Your task to perform on an android device: What's on my calendar today? Image 0: 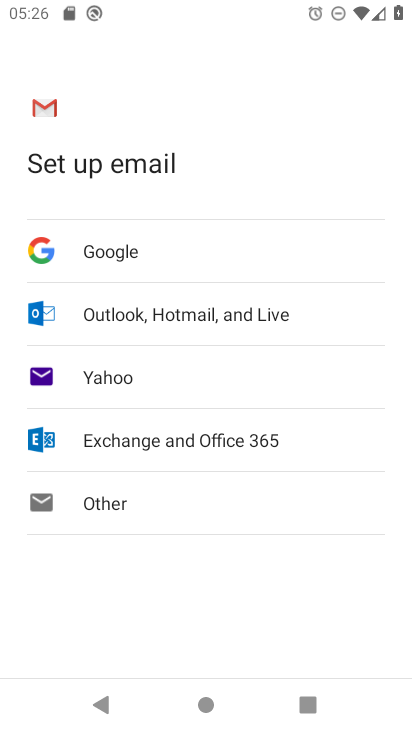
Step 0: press home button
Your task to perform on an android device: What's on my calendar today? Image 1: 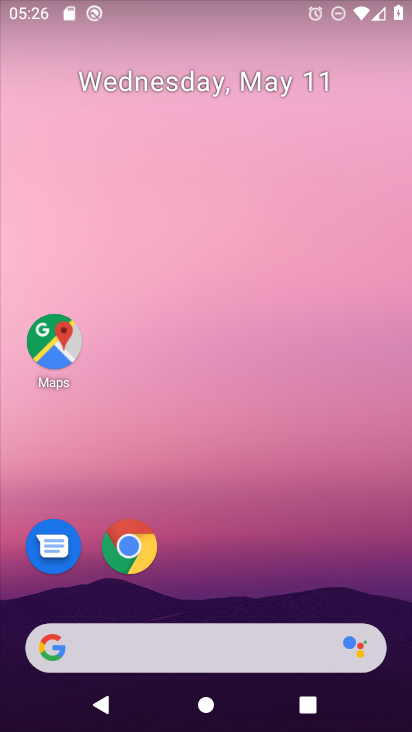
Step 1: drag from (225, 643) to (193, 5)
Your task to perform on an android device: What's on my calendar today? Image 2: 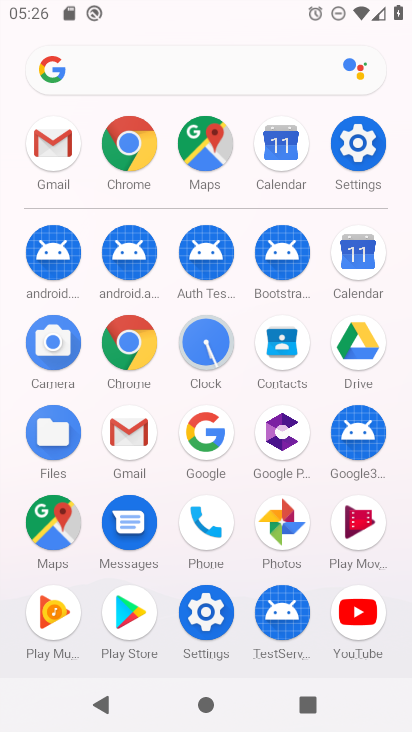
Step 2: click (367, 271)
Your task to perform on an android device: What's on my calendar today? Image 3: 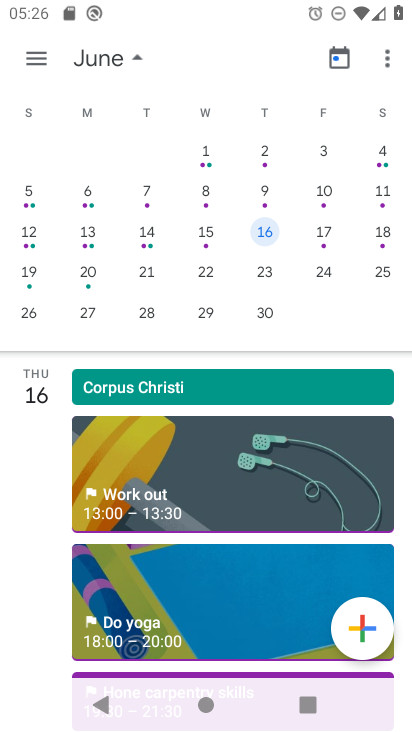
Step 3: drag from (108, 222) to (383, 200)
Your task to perform on an android device: What's on my calendar today? Image 4: 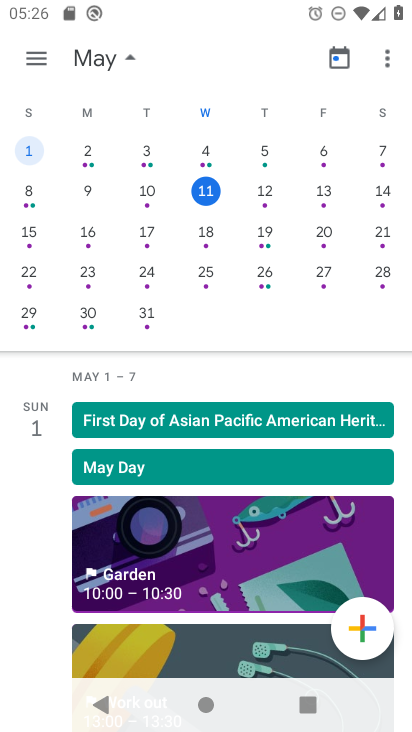
Step 4: click (204, 200)
Your task to perform on an android device: What's on my calendar today? Image 5: 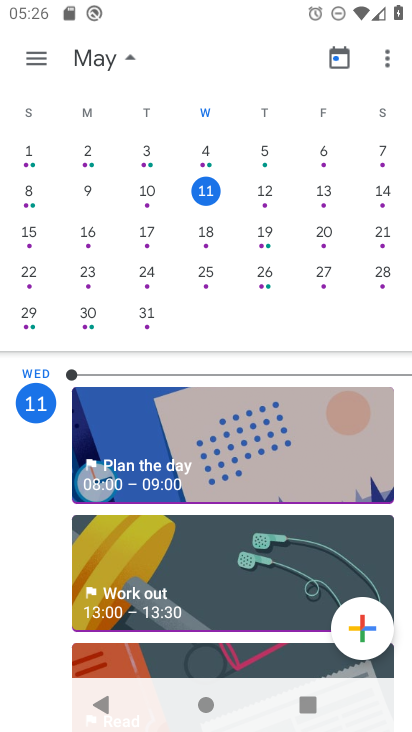
Step 5: task complete